Your task to perform on an android device: turn on notifications settings in the gmail app Image 0: 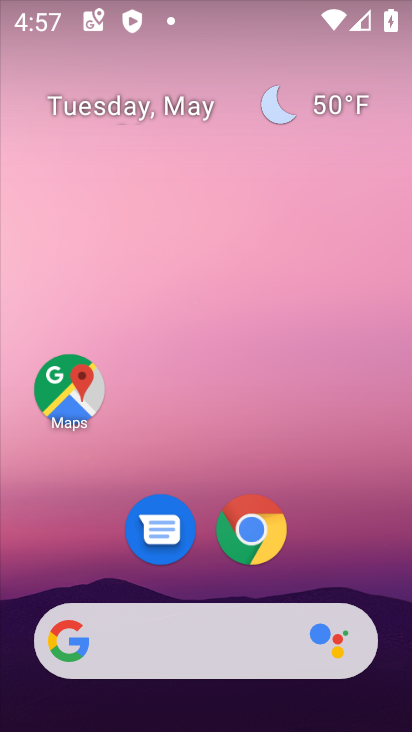
Step 0: drag from (346, 564) to (204, 12)
Your task to perform on an android device: turn on notifications settings in the gmail app Image 1: 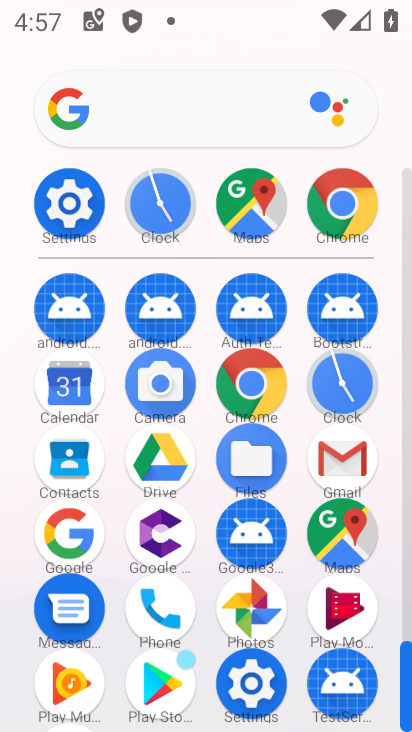
Step 1: drag from (11, 597) to (9, 213)
Your task to perform on an android device: turn on notifications settings in the gmail app Image 2: 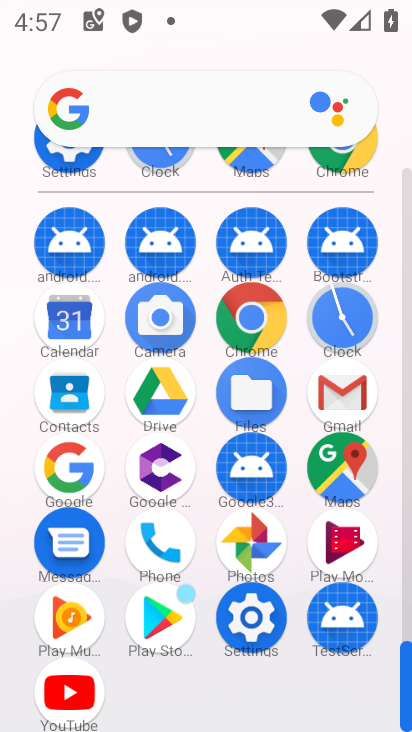
Step 2: click (341, 385)
Your task to perform on an android device: turn on notifications settings in the gmail app Image 3: 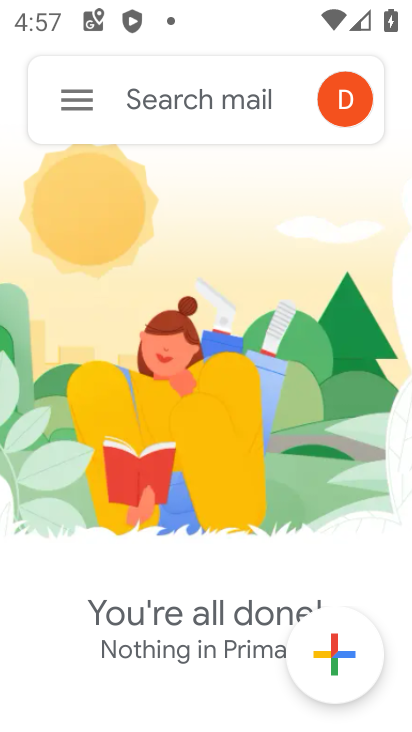
Step 3: click (77, 97)
Your task to perform on an android device: turn on notifications settings in the gmail app Image 4: 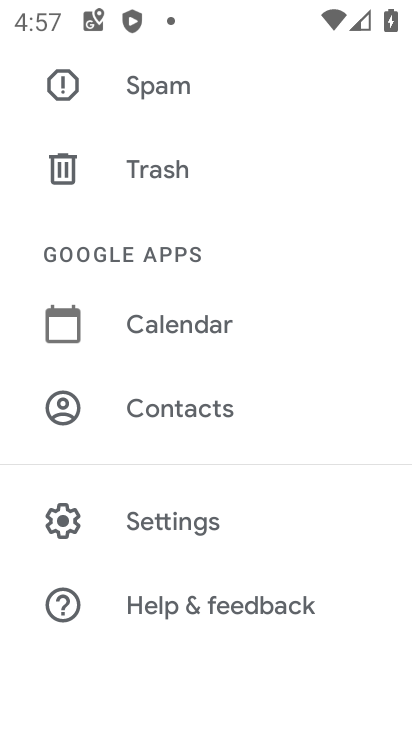
Step 4: drag from (257, 616) to (257, 172)
Your task to perform on an android device: turn on notifications settings in the gmail app Image 5: 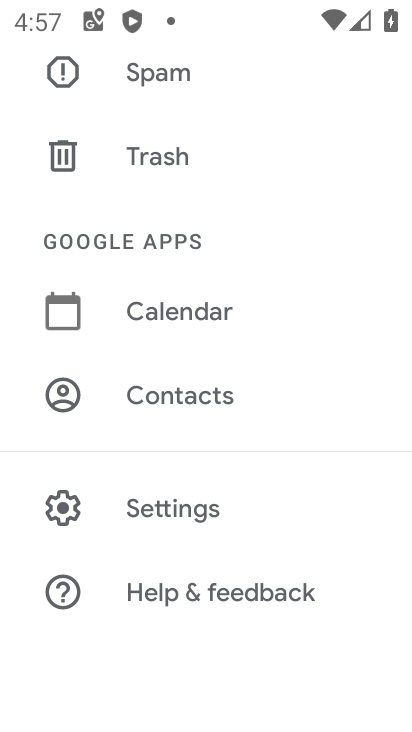
Step 5: click (177, 493)
Your task to perform on an android device: turn on notifications settings in the gmail app Image 6: 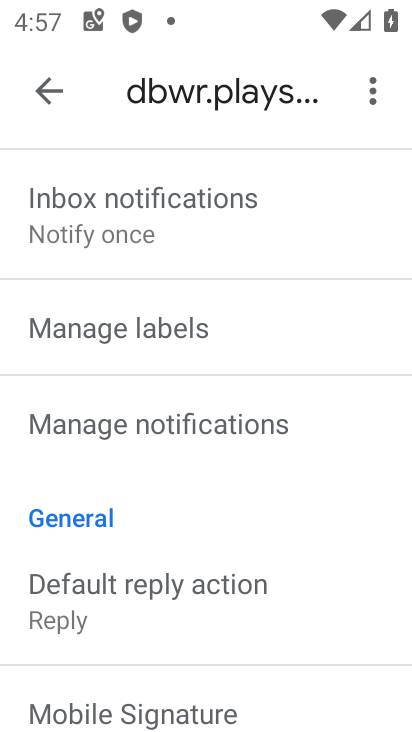
Step 6: click (133, 427)
Your task to perform on an android device: turn on notifications settings in the gmail app Image 7: 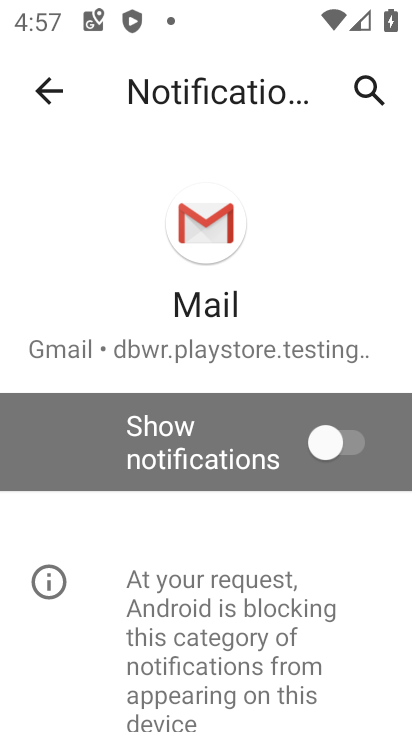
Step 7: click (327, 447)
Your task to perform on an android device: turn on notifications settings in the gmail app Image 8: 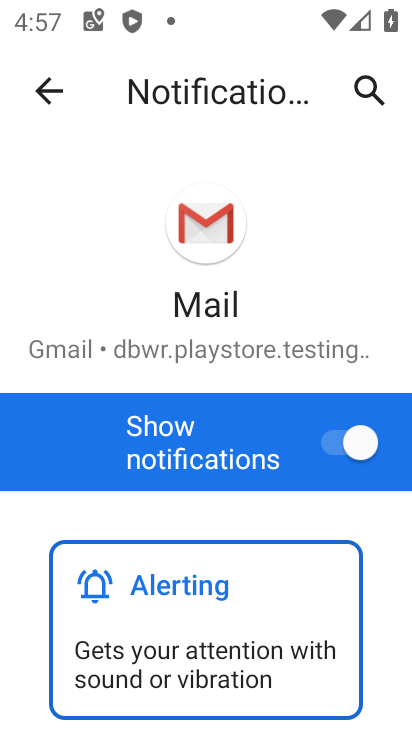
Step 8: task complete